Your task to perform on an android device: manage bookmarks in the chrome app Image 0: 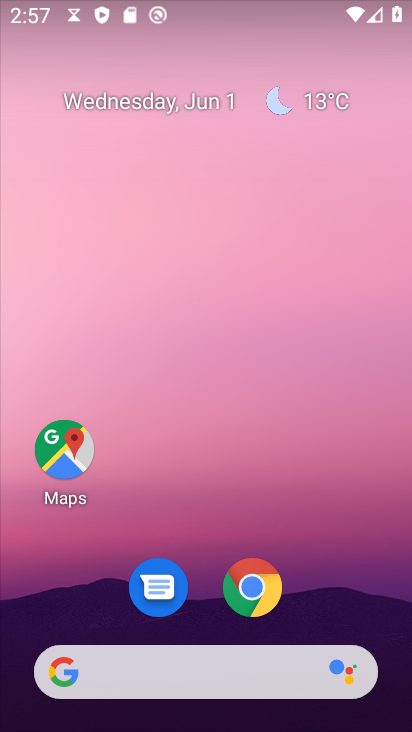
Step 0: drag from (248, 688) to (142, 127)
Your task to perform on an android device: manage bookmarks in the chrome app Image 1: 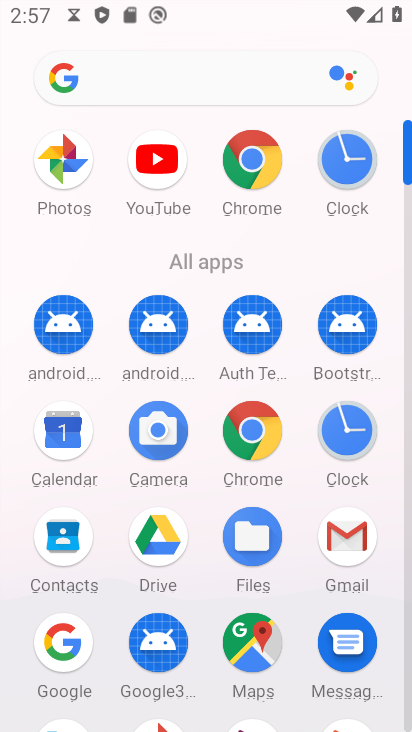
Step 1: click (247, 439)
Your task to perform on an android device: manage bookmarks in the chrome app Image 2: 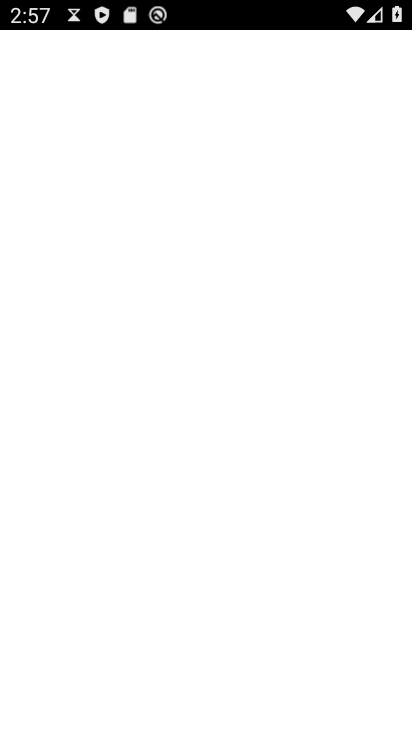
Step 2: click (243, 437)
Your task to perform on an android device: manage bookmarks in the chrome app Image 3: 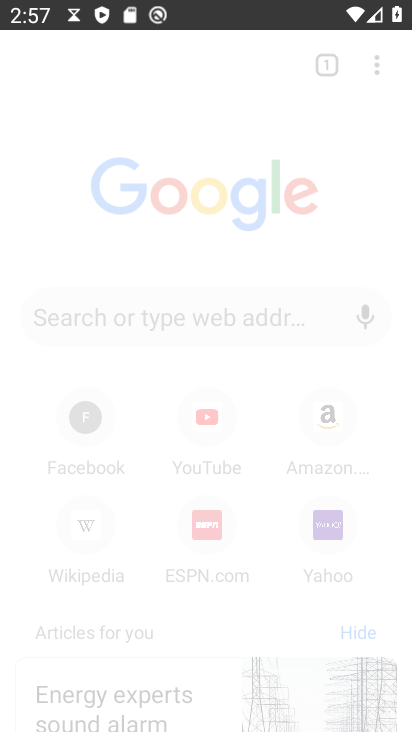
Step 3: click (239, 440)
Your task to perform on an android device: manage bookmarks in the chrome app Image 4: 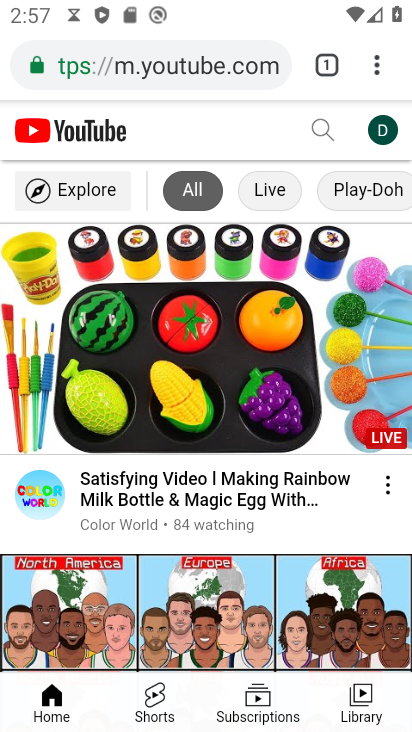
Step 4: press back button
Your task to perform on an android device: manage bookmarks in the chrome app Image 5: 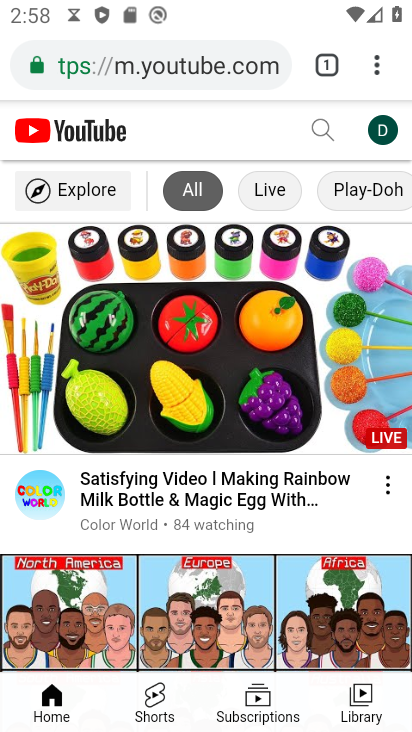
Step 5: press back button
Your task to perform on an android device: manage bookmarks in the chrome app Image 6: 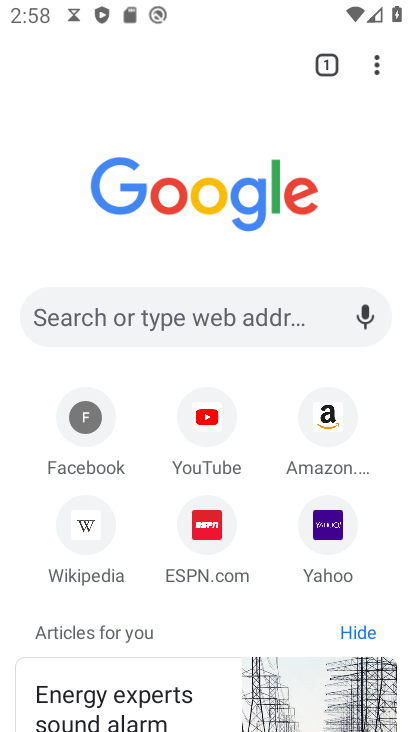
Step 6: press back button
Your task to perform on an android device: manage bookmarks in the chrome app Image 7: 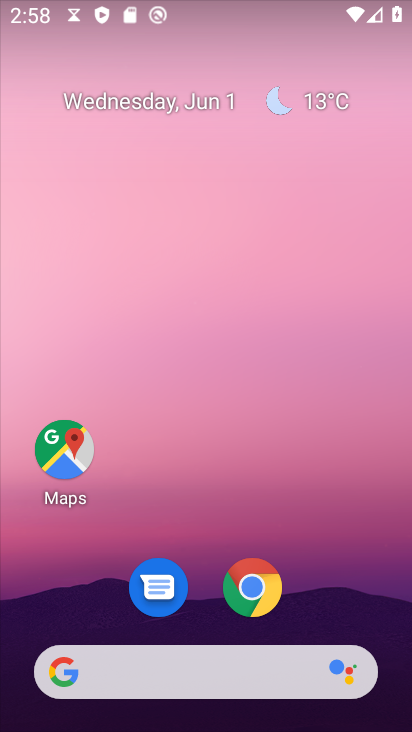
Step 7: drag from (194, 546) to (178, 121)
Your task to perform on an android device: manage bookmarks in the chrome app Image 8: 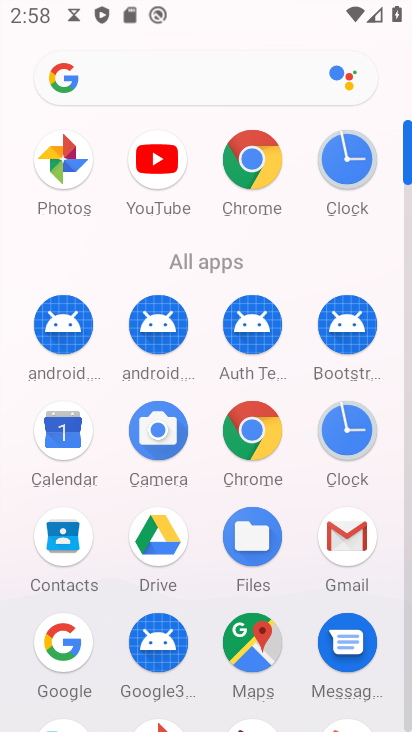
Step 8: click (243, 162)
Your task to perform on an android device: manage bookmarks in the chrome app Image 9: 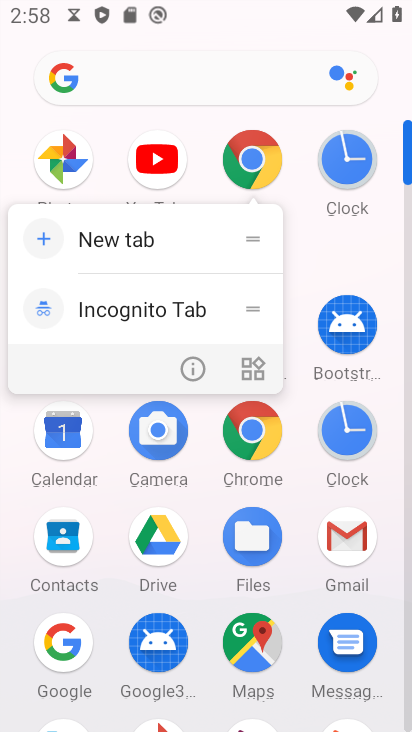
Step 9: click (114, 234)
Your task to perform on an android device: manage bookmarks in the chrome app Image 10: 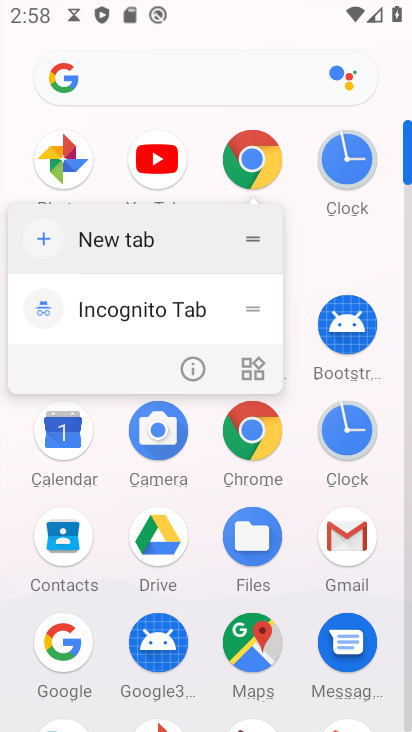
Step 10: click (114, 234)
Your task to perform on an android device: manage bookmarks in the chrome app Image 11: 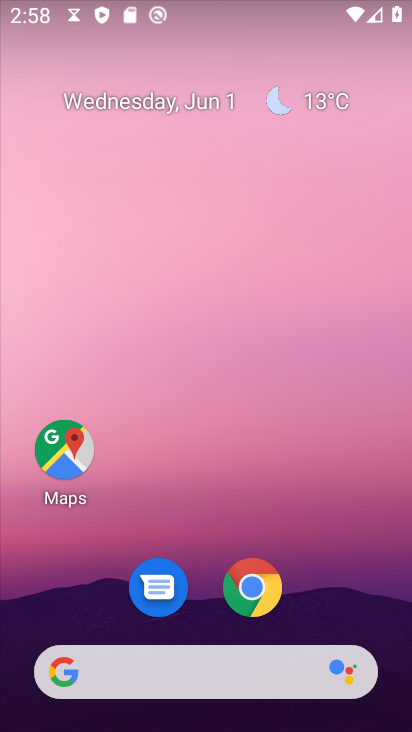
Step 11: drag from (270, 658) to (234, 6)
Your task to perform on an android device: manage bookmarks in the chrome app Image 12: 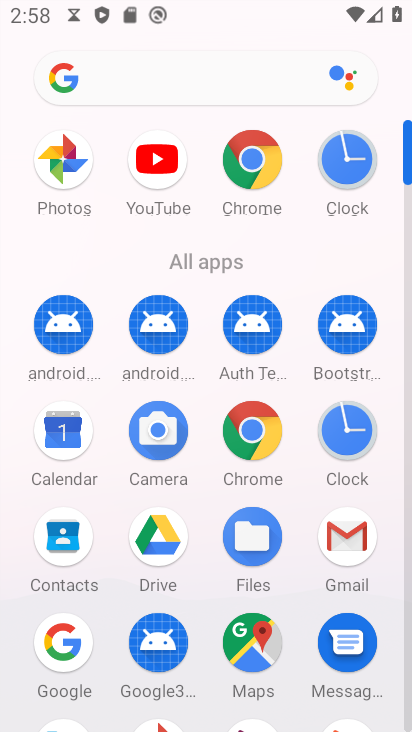
Step 12: click (238, 169)
Your task to perform on an android device: manage bookmarks in the chrome app Image 13: 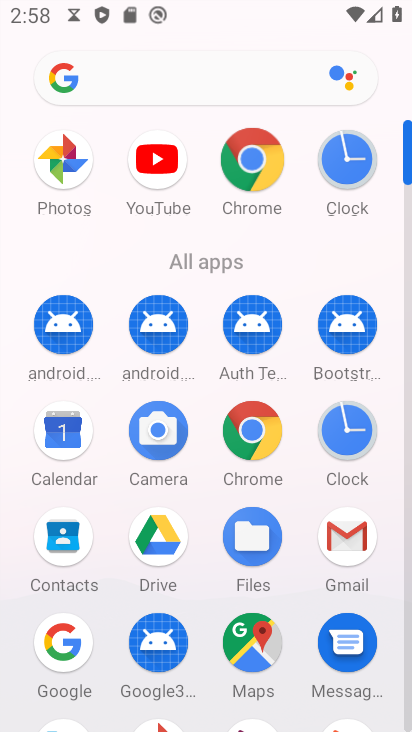
Step 13: click (239, 168)
Your task to perform on an android device: manage bookmarks in the chrome app Image 14: 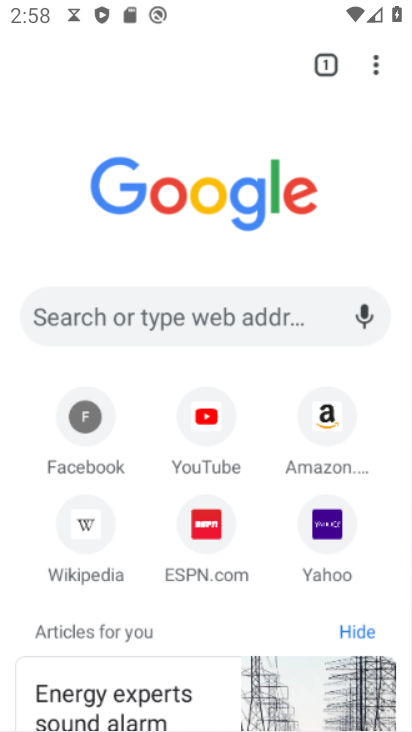
Step 14: click (238, 168)
Your task to perform on an android device: manage bookmarks in the chrome app Image 15: 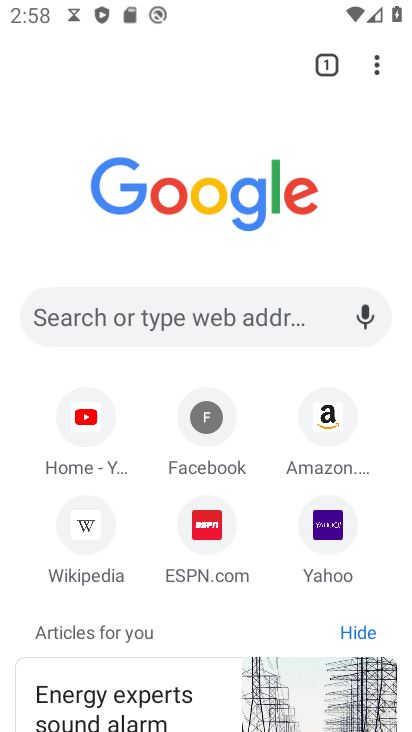
Step 15: drag from (376, 75) to (155, 258)
Your task to perform on an android device: manage bookmarks in the chrome app Image 16: 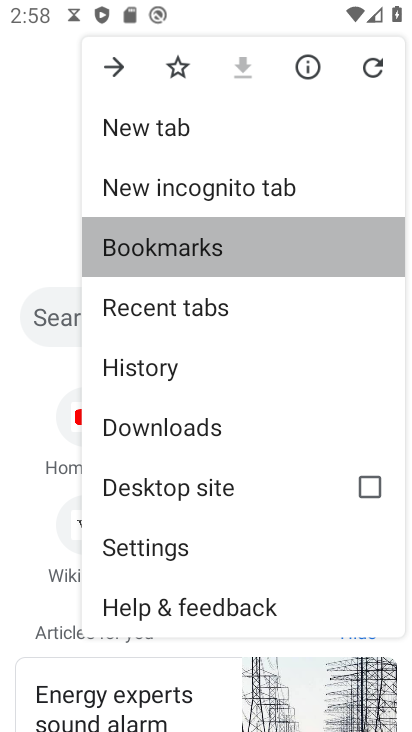
Step 16: click (156, 260)
Your task to perform on an android device: manage bookmarks in the chrome app Image 17: 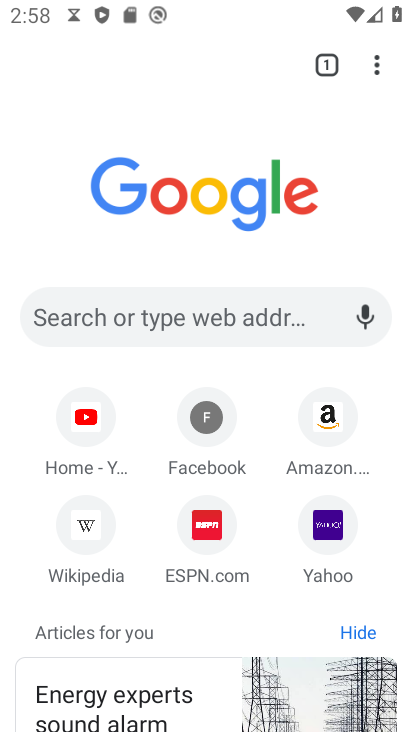
Step 17: click (155, 256)
Your task to perform on an android device: manage bookmarks in the chrome app Image 18: 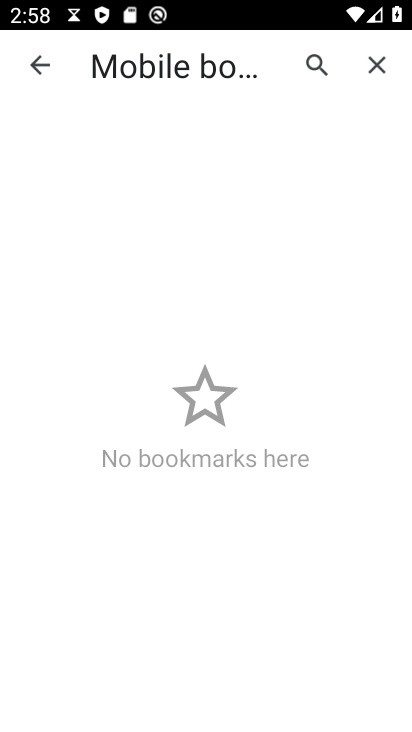
Step 18: task complete